Your task to perform on an android device: Search for sushi restaurants on Maps Image 0: 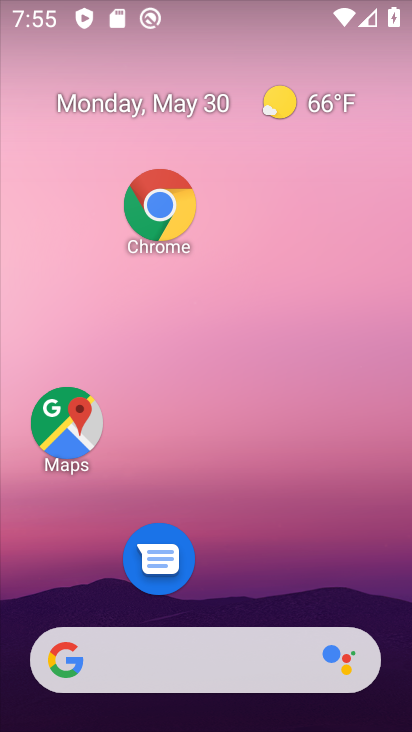
Step 0: drag from (222, 584) to (210, 199)
Your task to perform on an android device: Search for sushi restaurants on Maps Image 1: 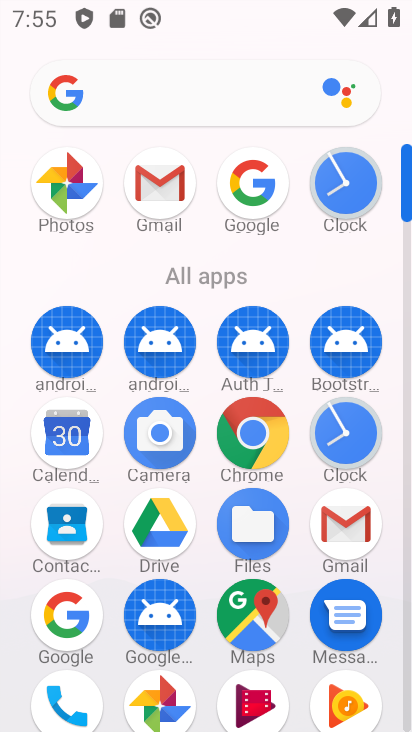
Step 1: drag from (245, 600) to (214, 59)
Your task to perform on an android device: Search for sushi restaurants on Maps Image 2: 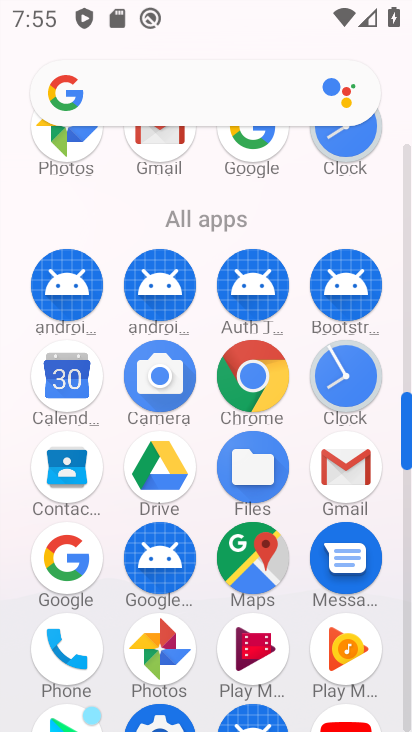
Step 2: click (250, 562)
Your task to perform on an android device: Search for sushi restaurants on Maps Image 3: 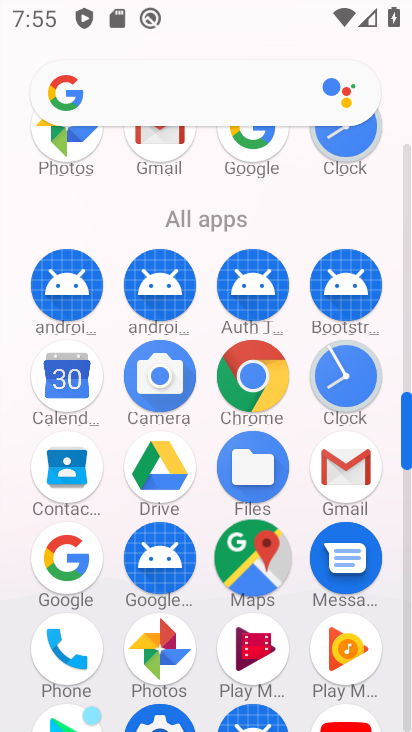
Step 3: click (250, 562)
Your task to perform on an android device: Search for sushi restaurants on Maps Image 4: 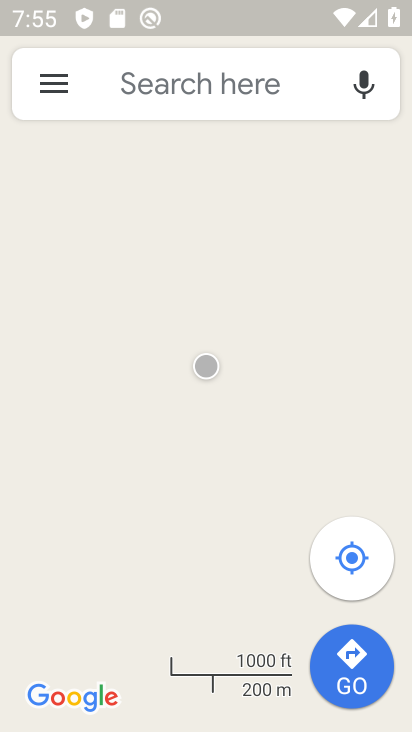
Step 4: click (130, 76)
Your task to perform on an android device: Search for sushi restaurants on Maps Image 5: 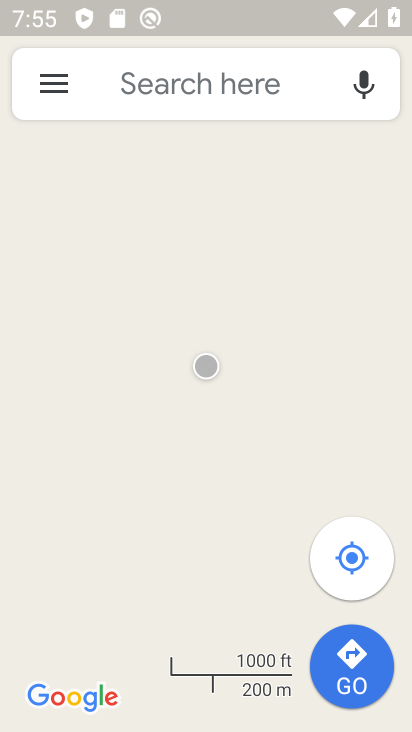
Step 5: click (130, 76)
Your task to perform on an android device: Search for sushi restaurants on Maps Image 6: 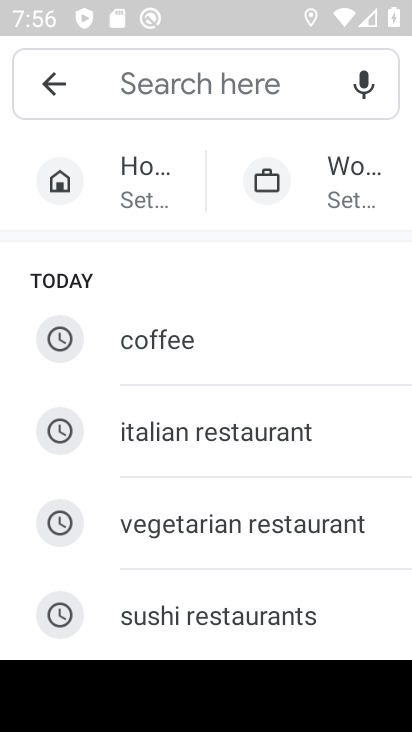
Step 6: type "shushi restaurants"
Your task to perform on an android device: Search for sushi restaurants on Maps Image 7: 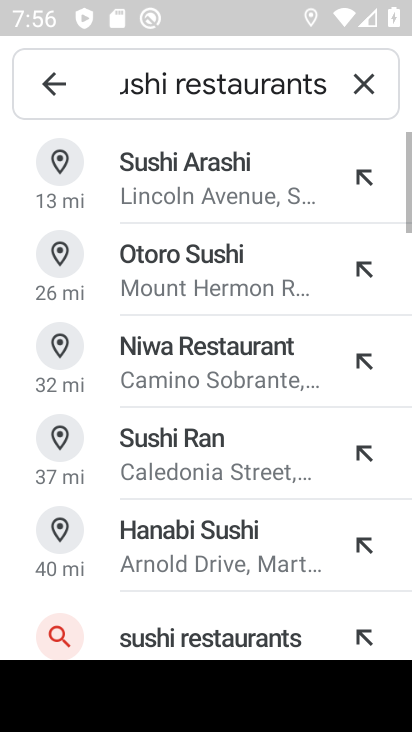
Step 7: click (179, 164)
Your task to perform on an android device: Search for sushi restaurants on Maps Image 8: 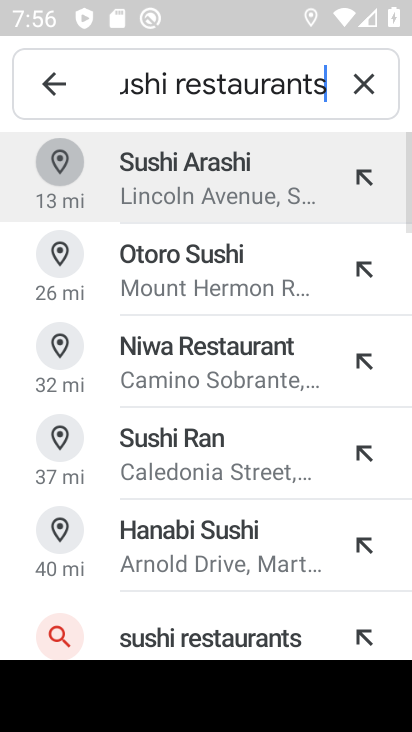
Step 8: click (186, 164)
Your task to perform on an android device: Search for sushi restaurants on Maps Image 9: 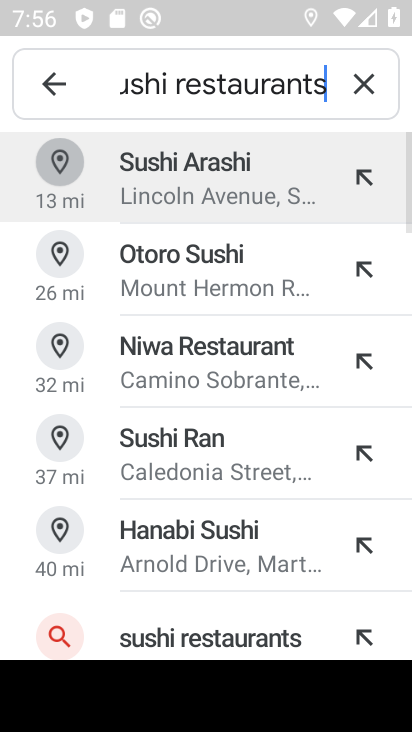
Step 9: click (187, 164)
Your task to perform on an android device: Search for sushi restaurants on Maps Image 10: 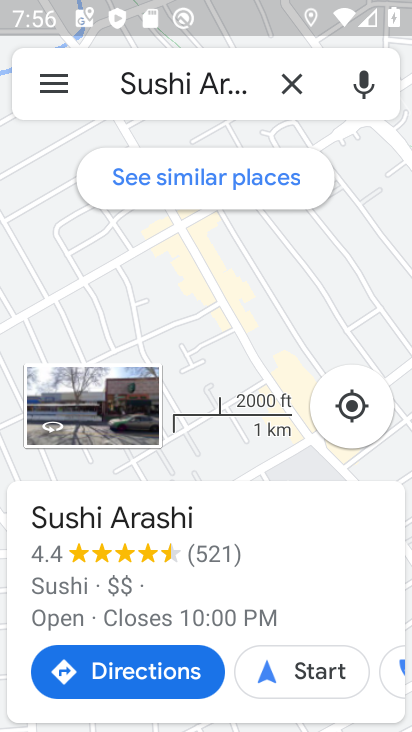
Step 10: task complete